Your task to perform on an android device: toggle notification dots Image 0: 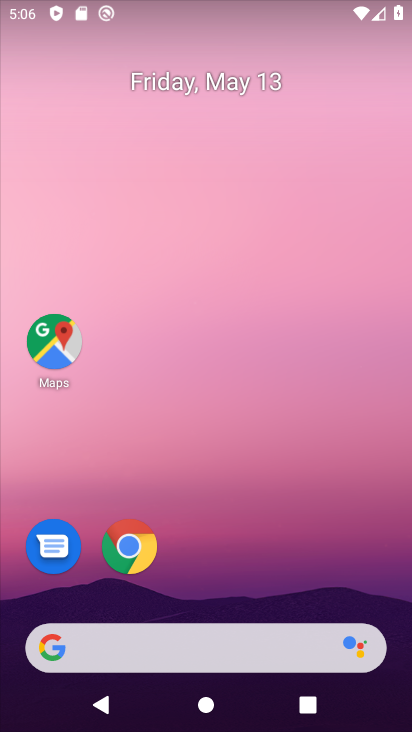
Step 0: drag from (200, 618) to (277, 214)
Your task to perform on an android device: toggle notification dots Image 1: 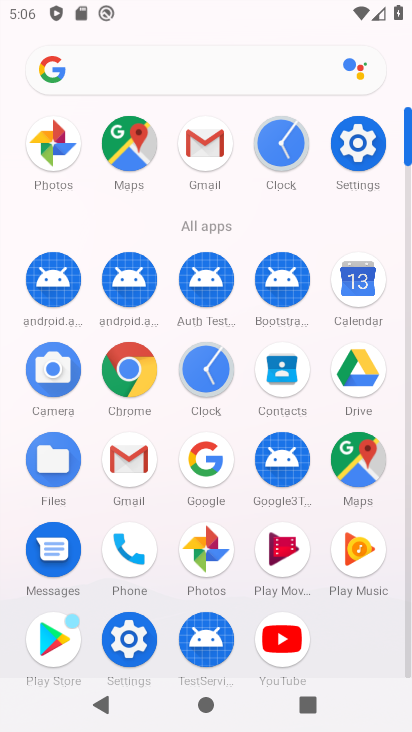
Step 1: click (122, 648)
Your task to perform on an android device: toggle notification dots Image 2: 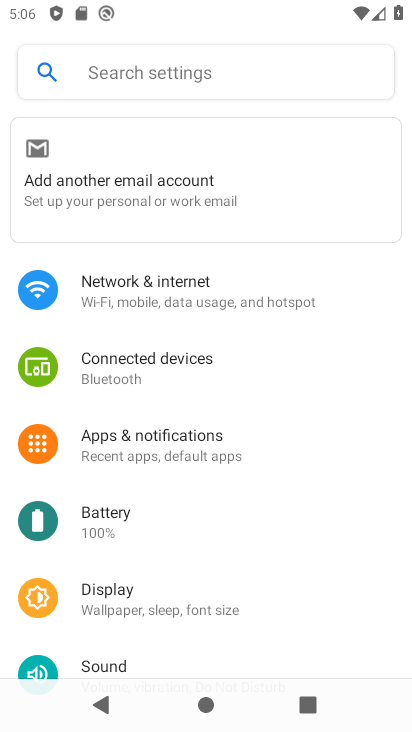
Step 2: click (148, 417)
Your task to perform on an android device: toggle notification dots Image 3: 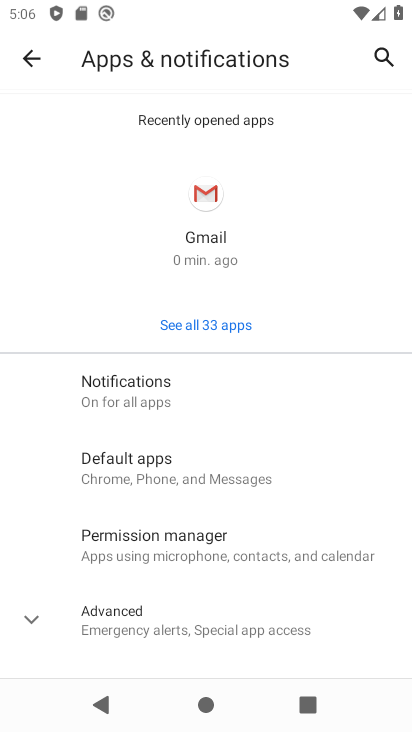
Step 3: click (181, 393)
Your task to perform on an android device: toggle notification dots Image 4: 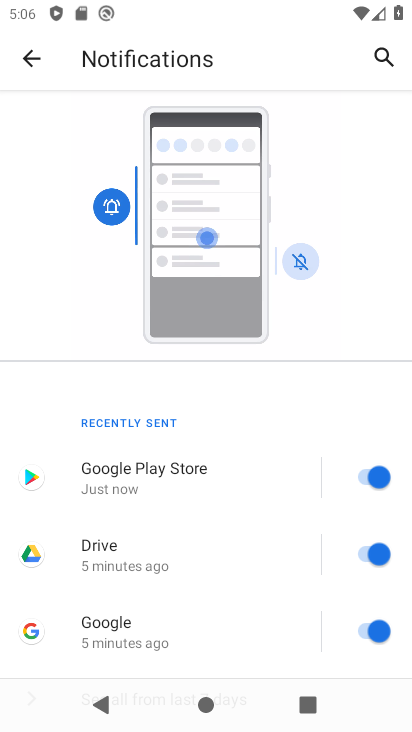
Step 4: drag from (150, 610) to (238, 315)
Your task to perform on an android device: toggle notification dots Image 5: 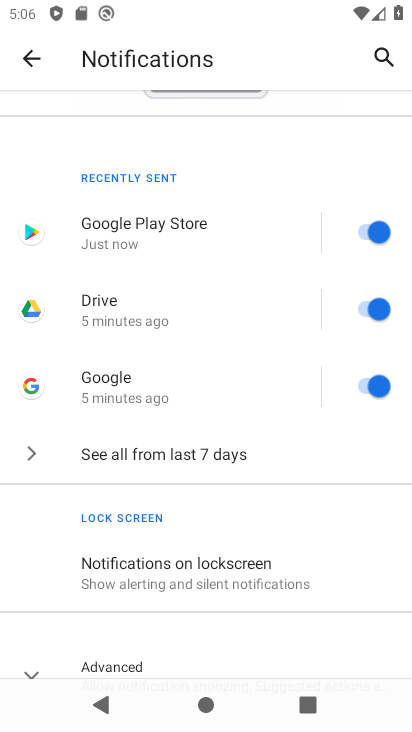
Step 5: drag from (181, 600) to (287, 328)
Your task to perform on an android device: toggle notification dots Image 6: 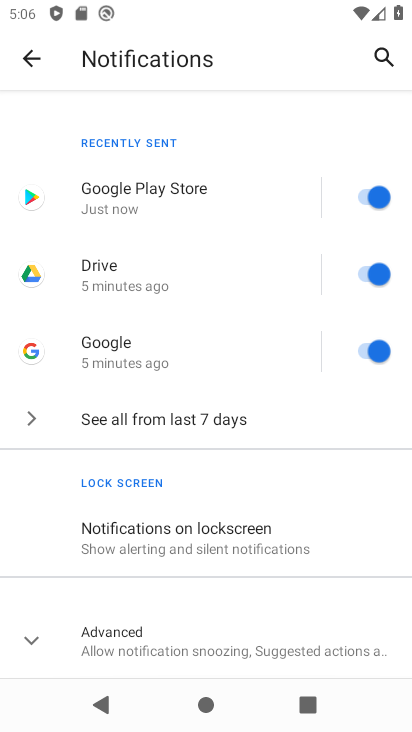
Step 6: click (179, 639)
Your task to perform on an android device: toggle notification dots Image 7: 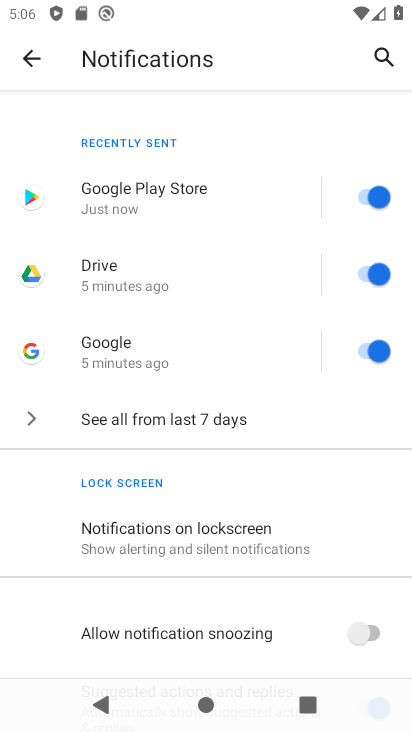
Step 7: drag from (113, 627) to (291, 270)
Your task to perform on an android device: toggle notification dots Image 8: 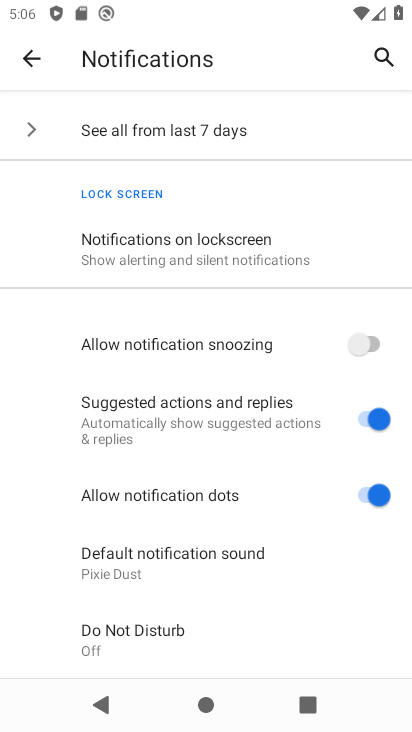
Step 8: click (363, 492)
Your task to perform on an android device: toggle notification dots Image 9: 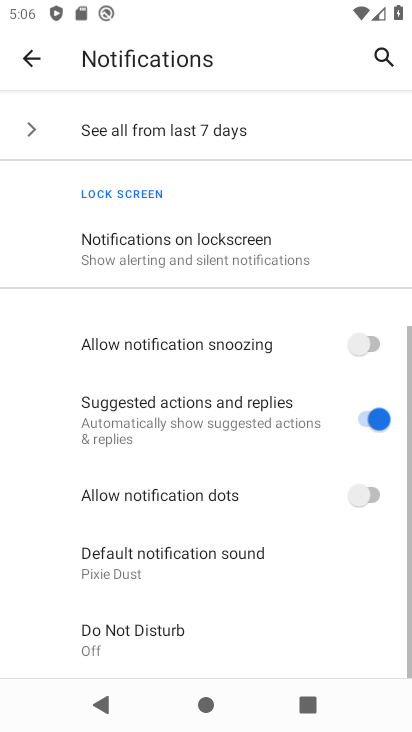
Step 9: task complete